Your task to perform on an android device: open app "Cash App" Image 0: 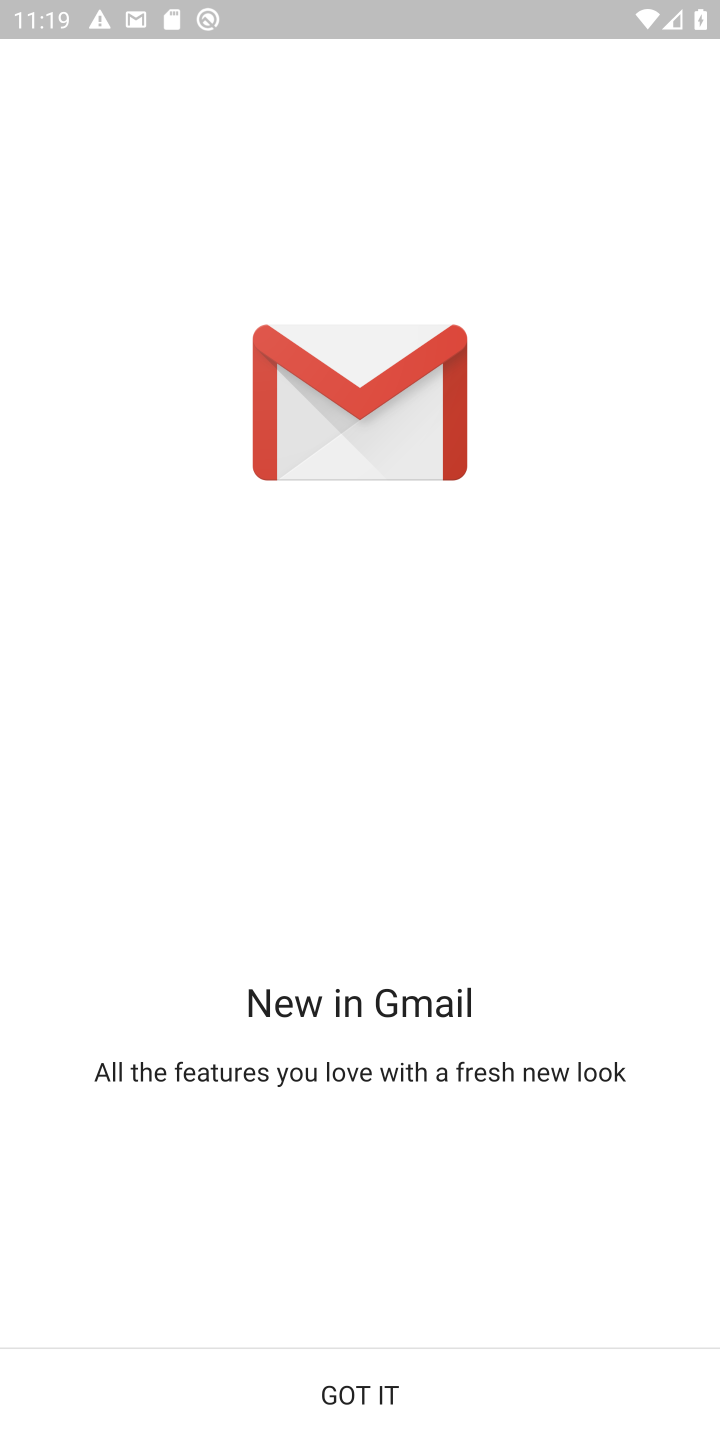
Step 0: press home button
Your task to perform on an android device: open app "Cash App" Image 1: 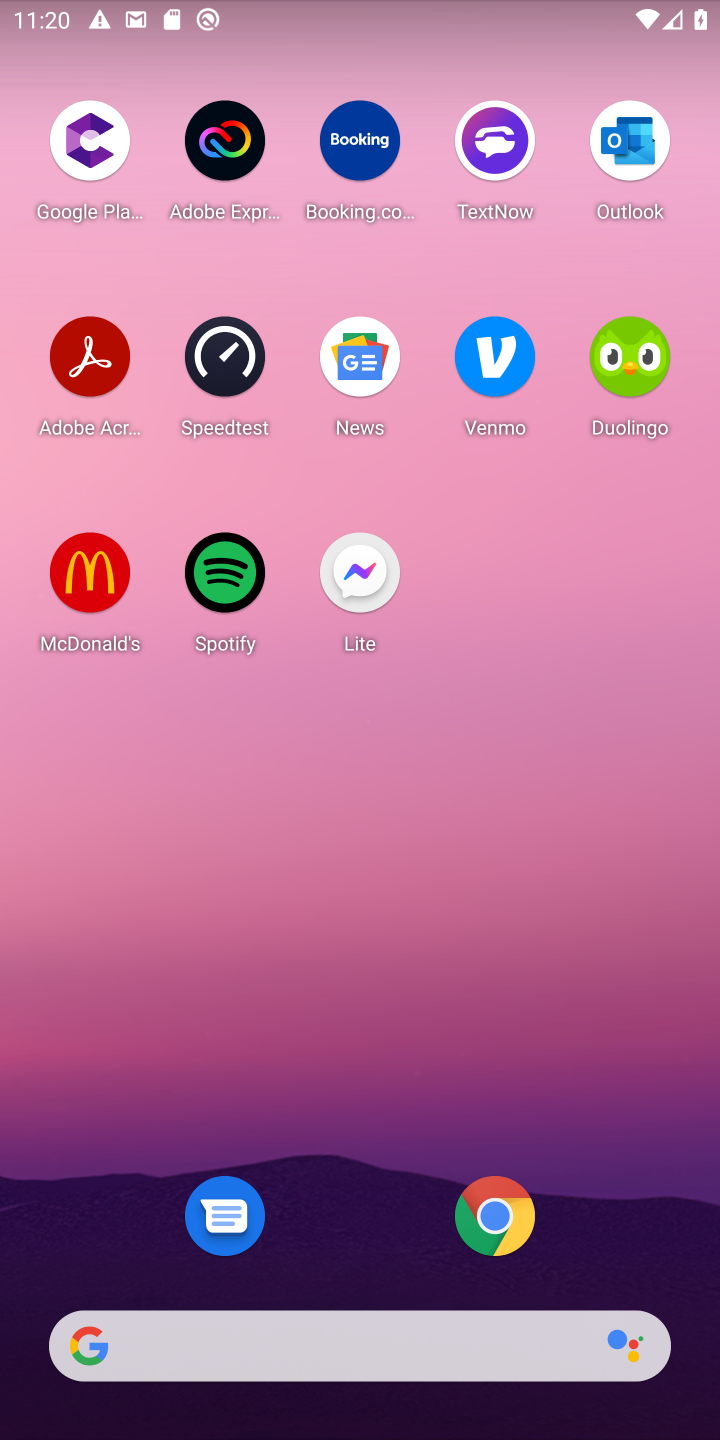
Step 1: drag from (291, 1336) to (435, 67)
Your task to perform on an android device: open app "Cash App" Image 2: 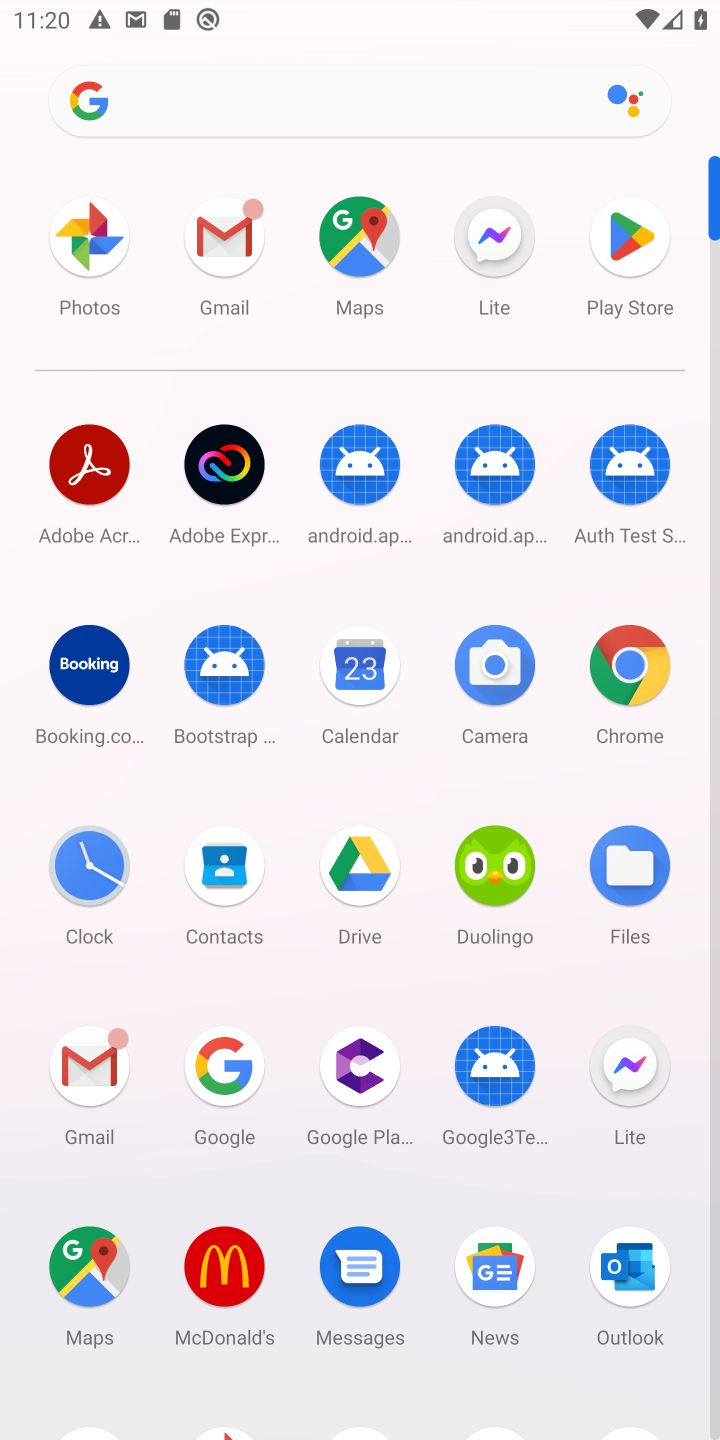
Step 2: click (632, 242)
Your task to perform on an android device: open app "Cash App" Image 3: 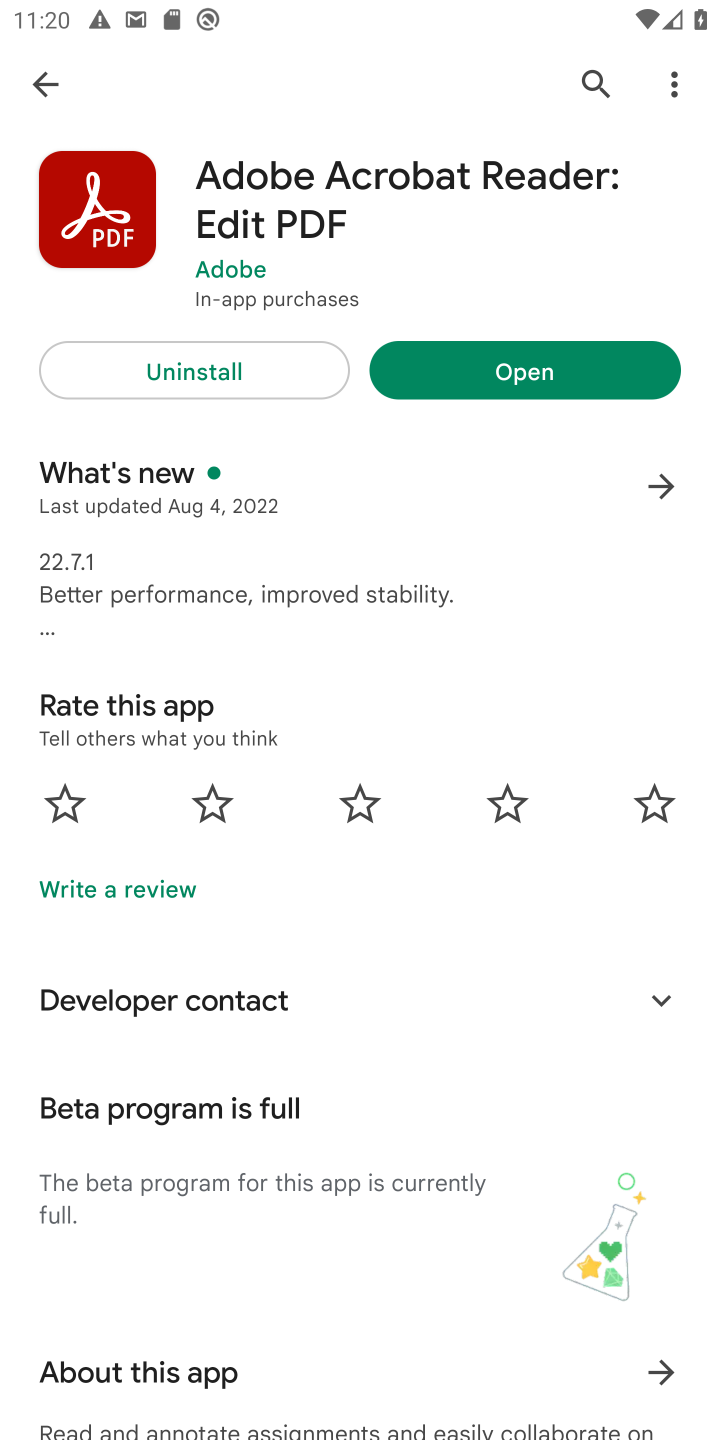
Step 3: press back button
Your task to perform on an android device: open app "Cash App" Image 4: 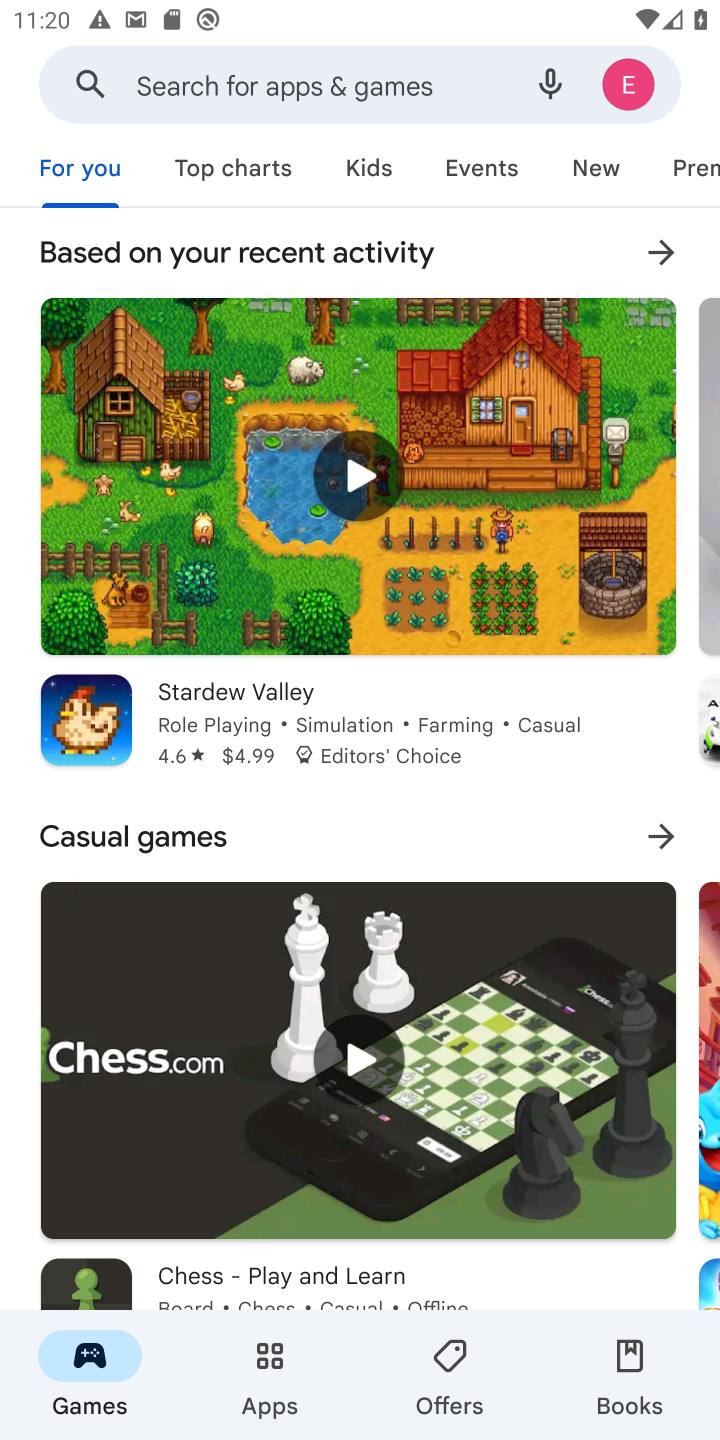
Step 4: click (263, 85)
Your task to perform on an android device: open app "Cash App" Image 5: 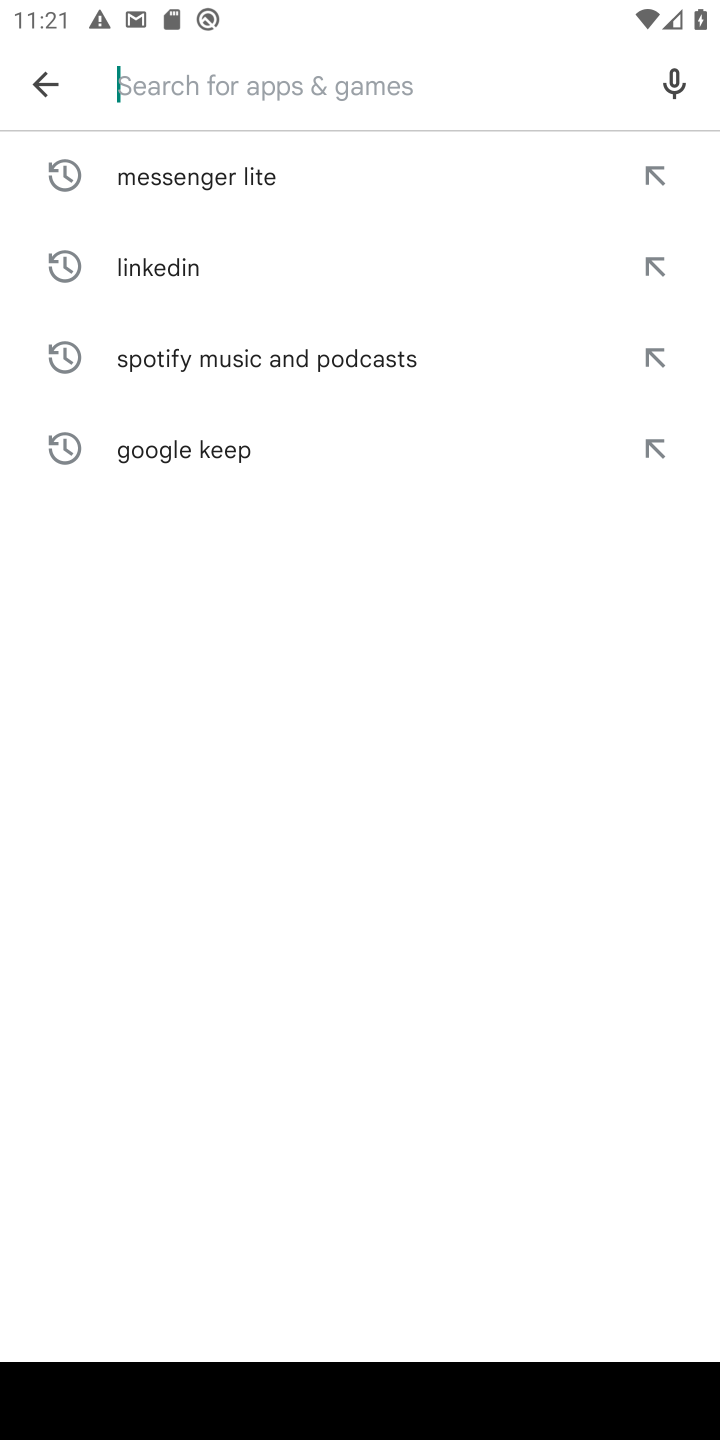
Step 5: type "Cash App"
Your task to perform on an android device: open app "Cash App" Image 6: 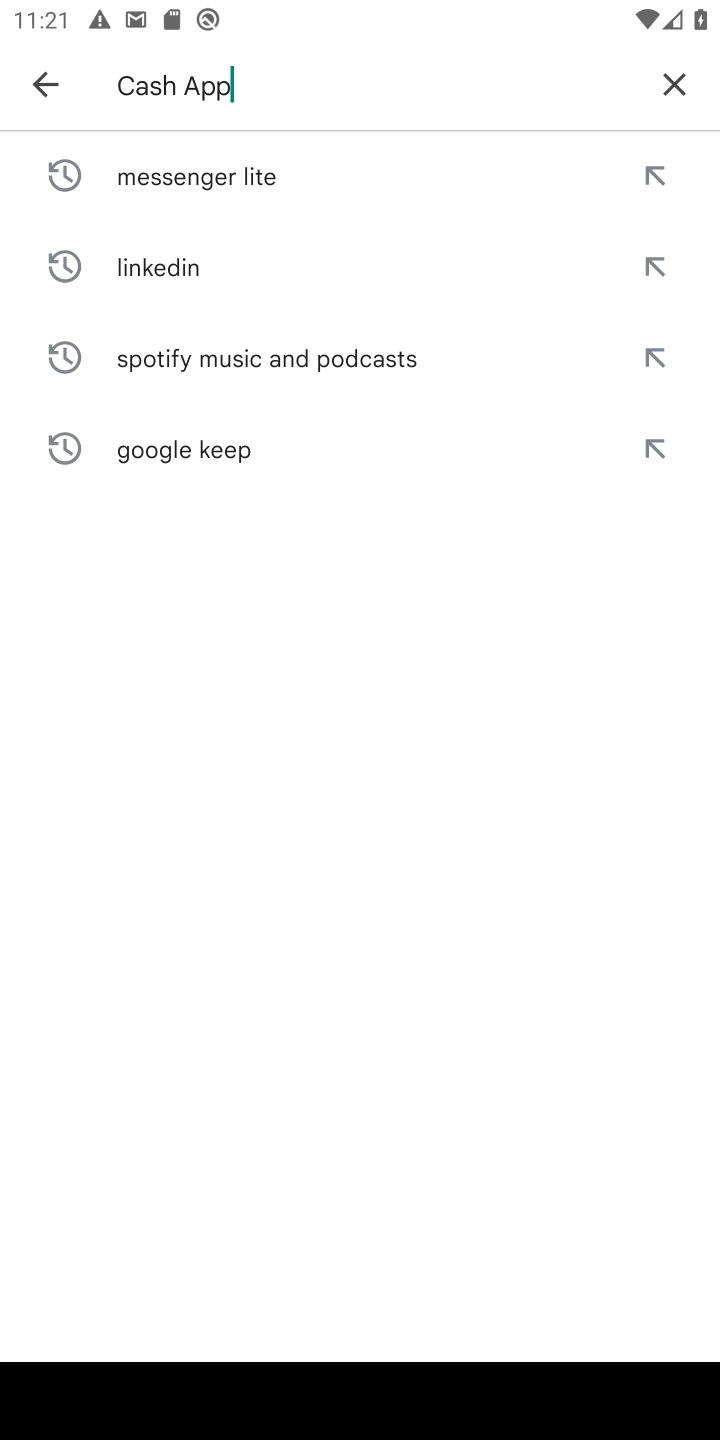
Step 6: type ""
Your task to perform on an android device: open app "Cash App" Image 7: 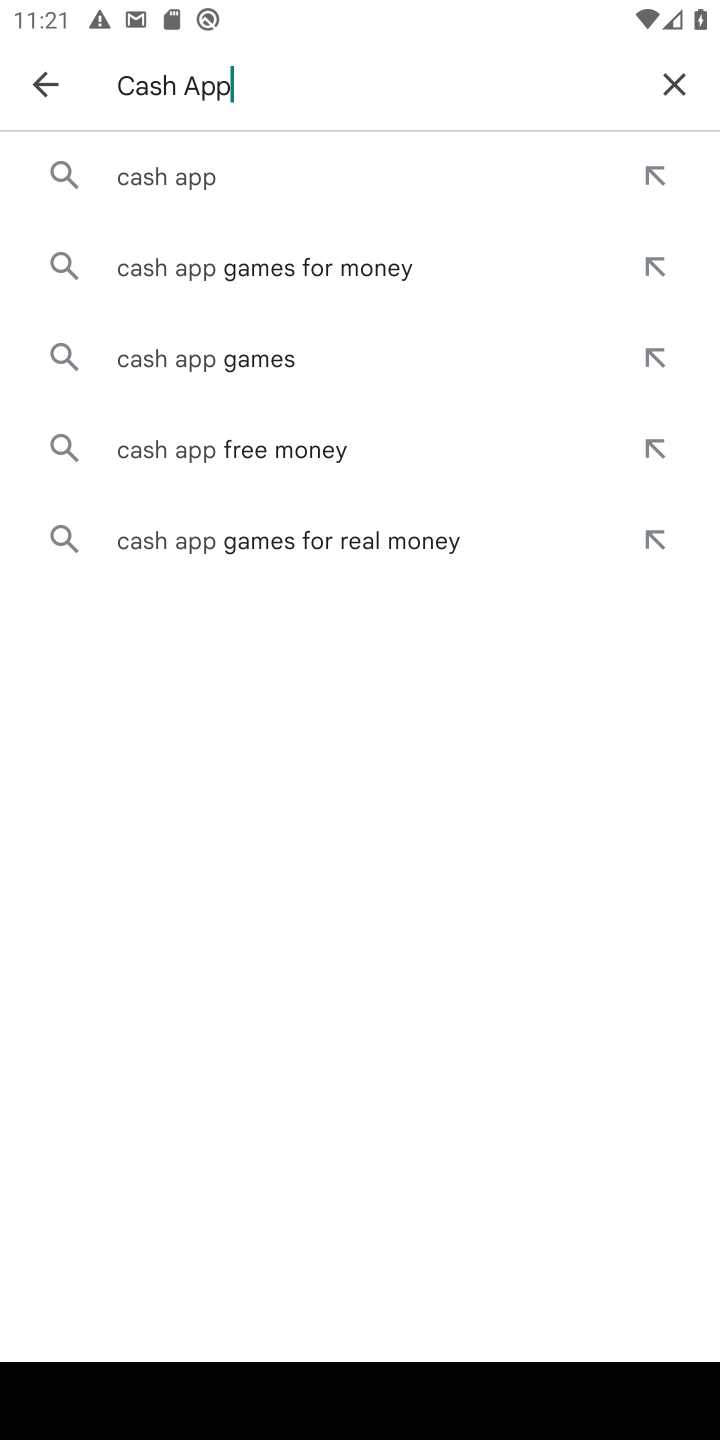
Step 7: click (167, 166)
Your task to perform on an android device: open app "Cash App" Image 8: 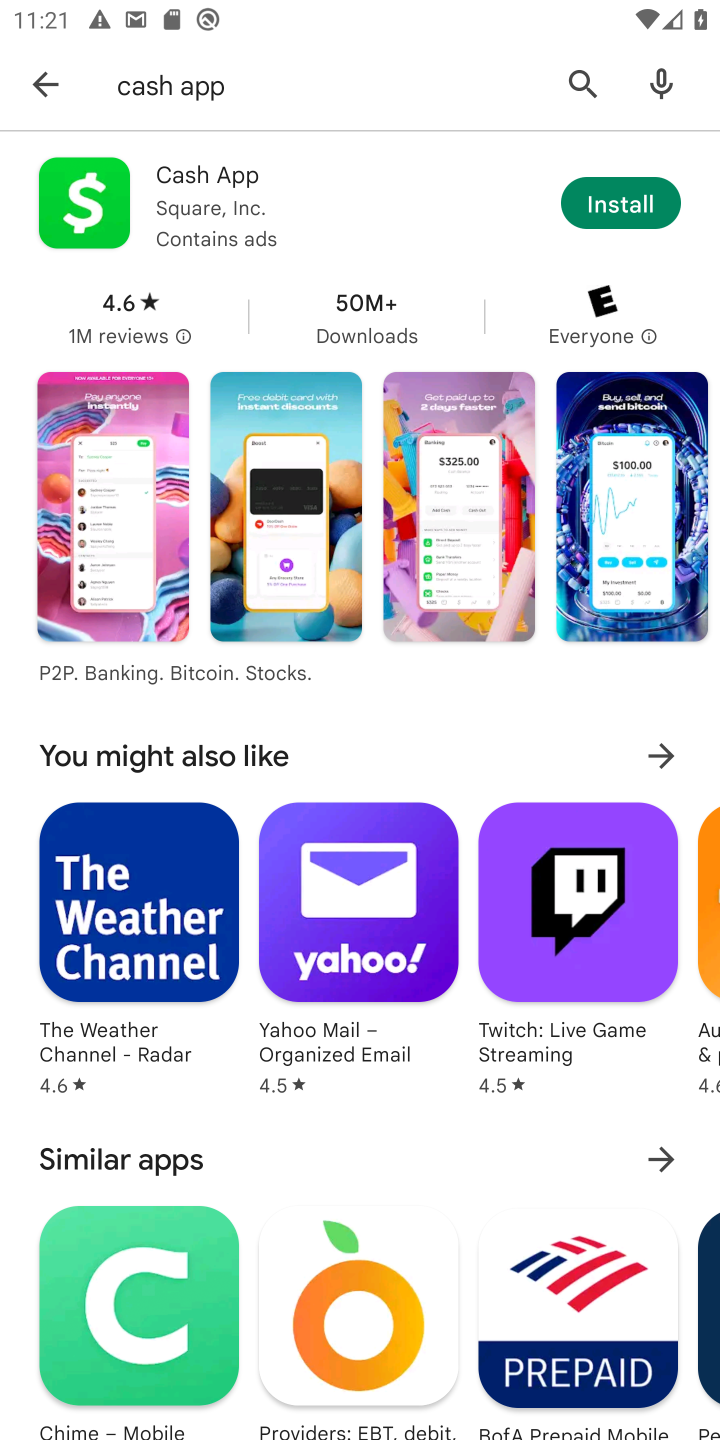
Step 8: task complete